Your task to perform on an android device: delete browsing data in the chrome app Image 0: 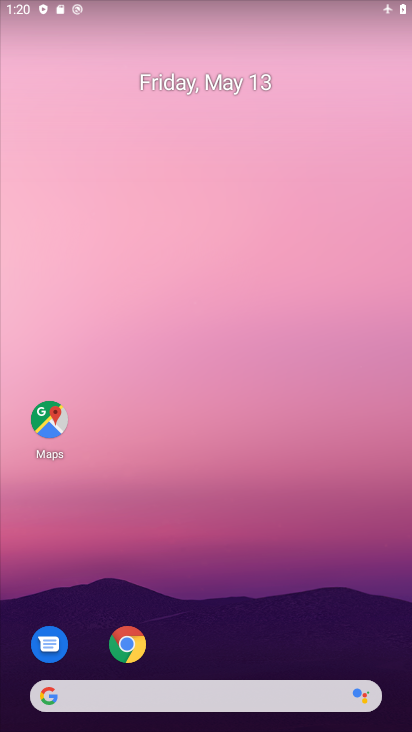
Step 0: click (131, 641)
Your task to perform on an android device: delete browsing data in the chrome app Image 1: 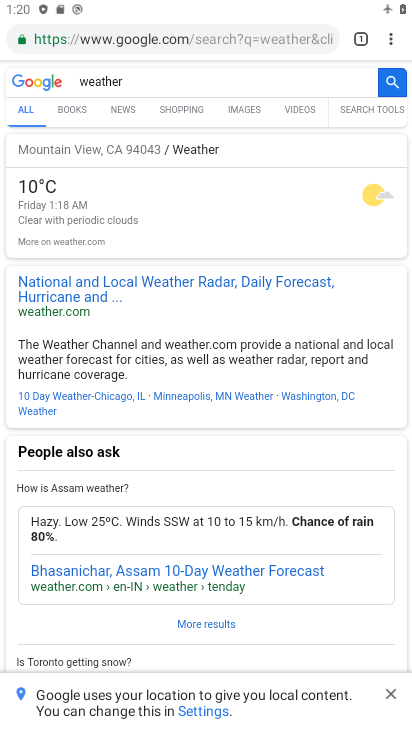
Step 1: click (389, 35)
Your task to perform on an android device: delete browsing data in the chrome app Image 2: 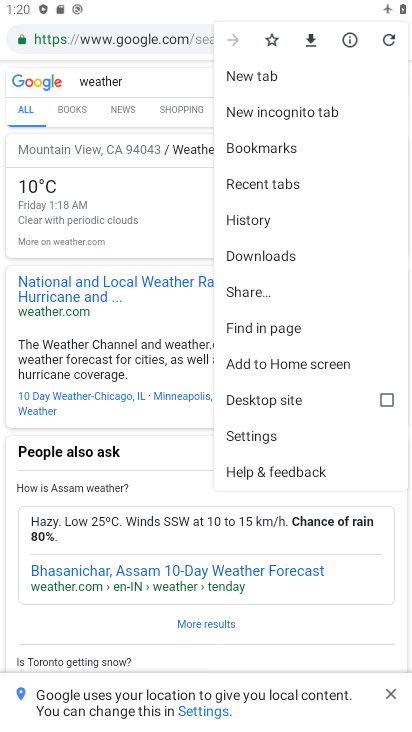
Step 2: click (257, 213)
Your task to perform on an android device: delete browsing data in the chrome app Image 3: 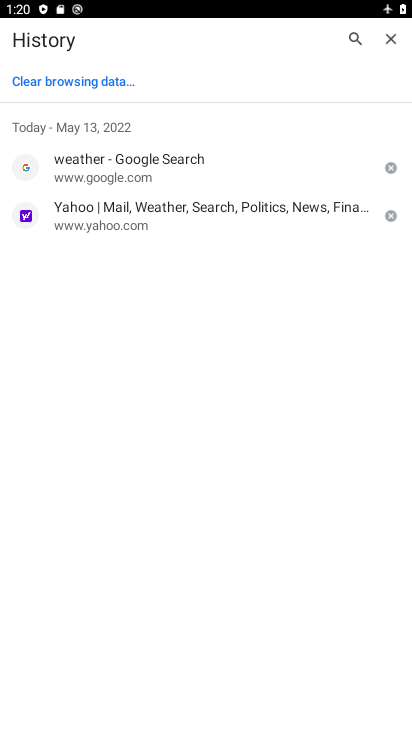
Step 3: click (80, 74)
Your task to perform on an android device: delete browsing data in the chrome app Image 4: 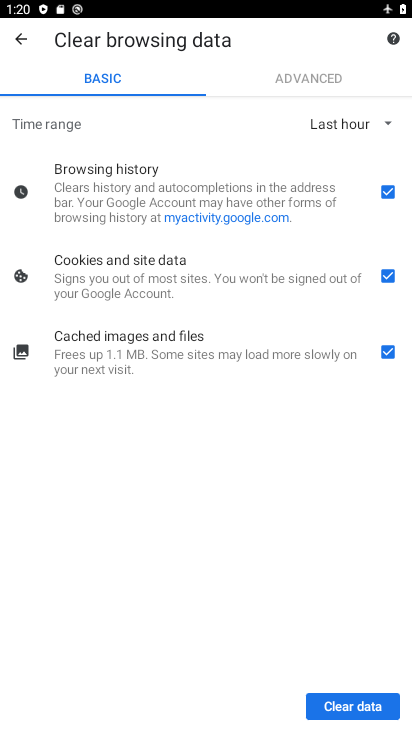
Step 4: drag from (376, 703) to (363, 99)
Your task to perform on an android device: delete browsing data in the chrome app Image 5: 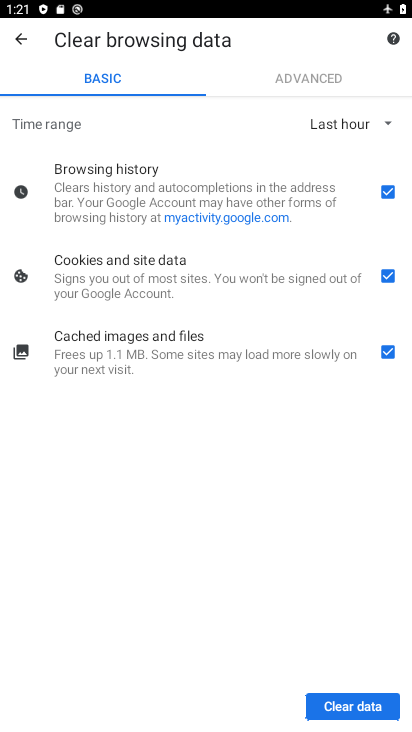
Step 5: click (356, 121)
Your task to perform on an android device: delete browsing data in the chrome app Image 6: 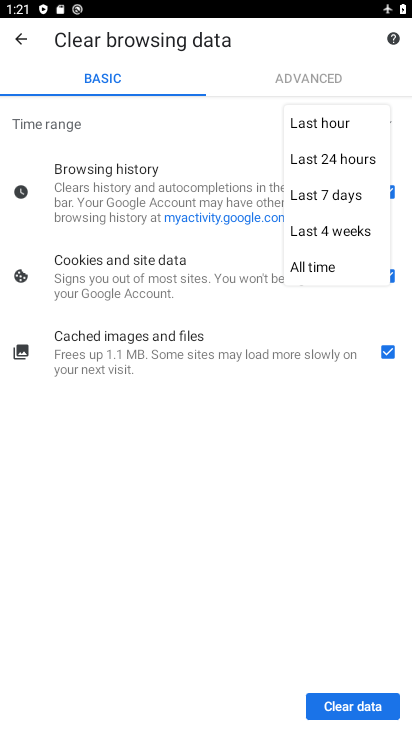
Step 6: click (323, 269)
Your task to perform on an android device: delete browsing data in the chrome app Image 7: 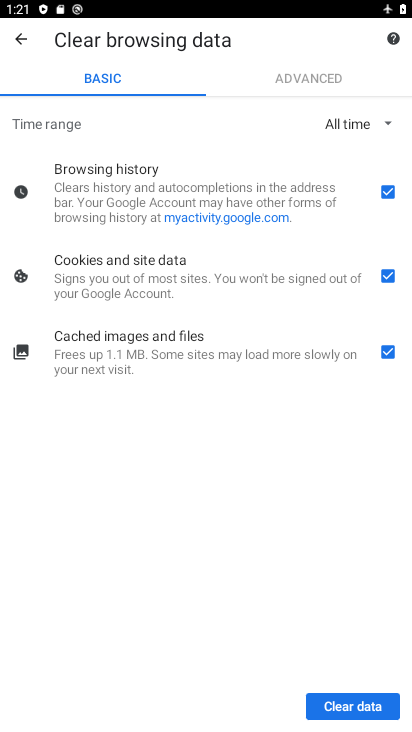
Step 7: click (347, 707)
Your task to perform on an android device: delete browsing data in the chrome app Image 8: 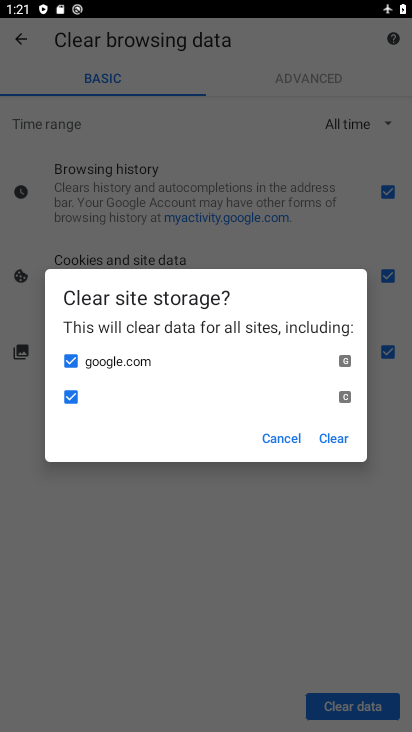
Step 8: click (336, 436)
Your task to perform on an android device: delete browsing data in the chrome app Image 9: 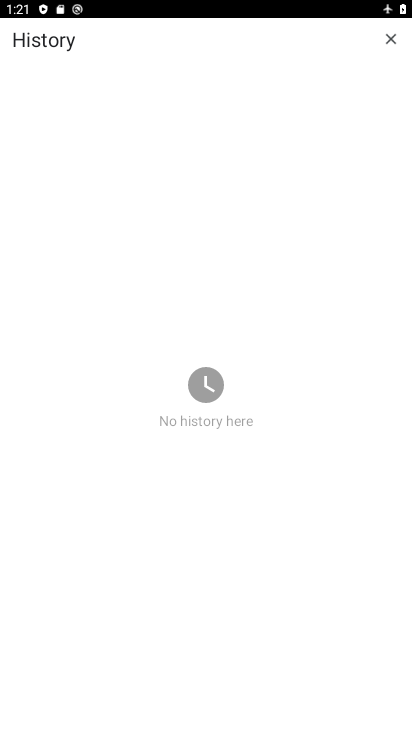
Step 9: task complete